Your task to perform on an android device: Add usb-c to usb-a to the cart on ebay Image 0: 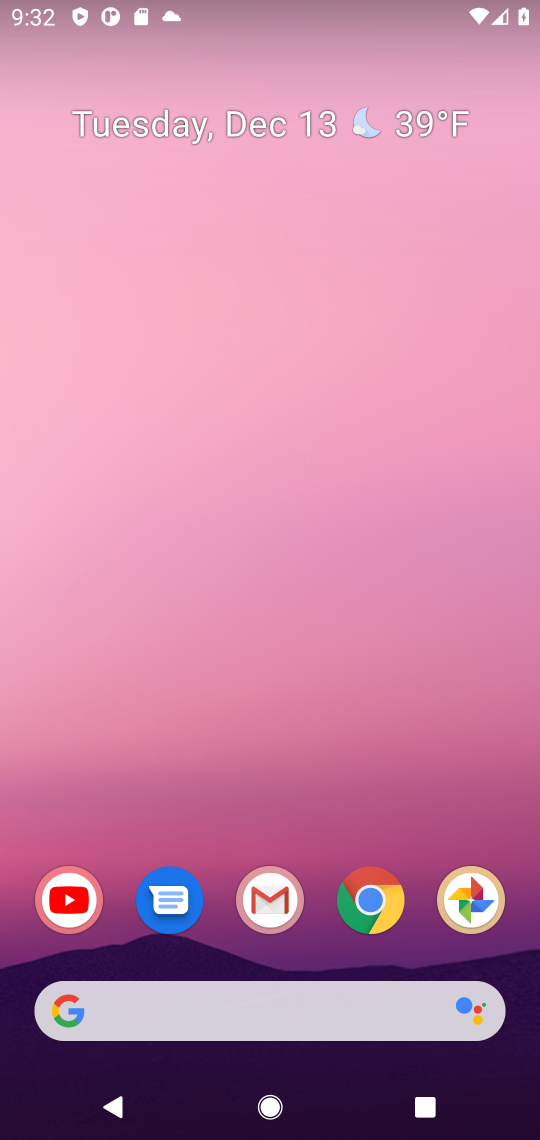
Step 0: task complete